Your task to perform on an android device: Turn on the flashlight Image 0: 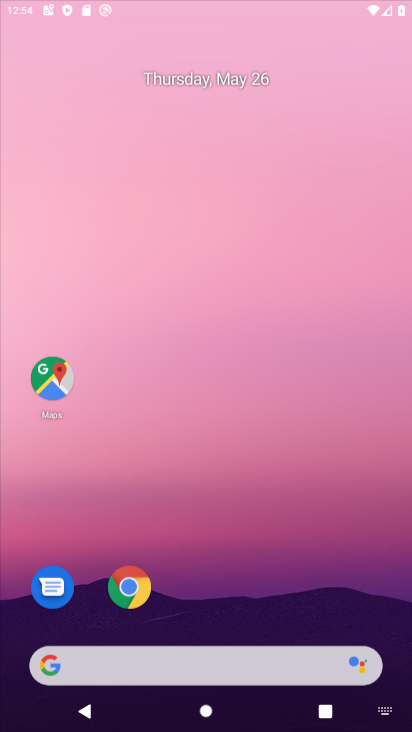
Step 0: click (131, 594)
Your task to perform on an android device: Turn on the flashlight Image 1: 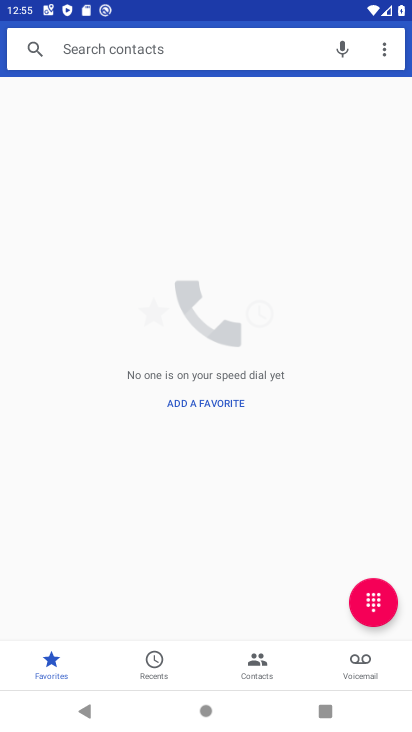
Step 1: press back button
Your task to perform on an android device: Turn on the flashlight Image 2: 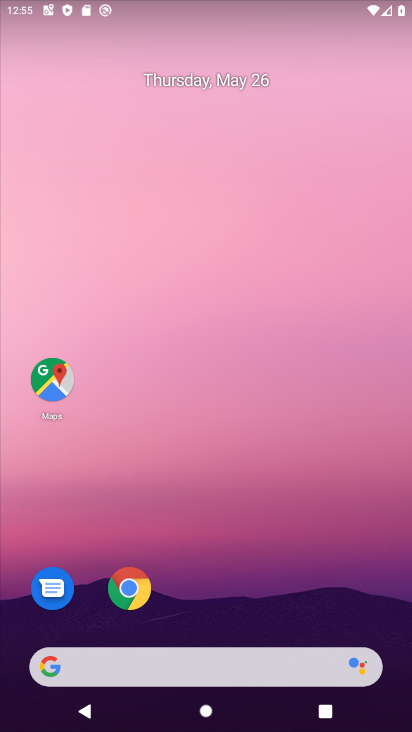
Step 2: drag from (383, 660) to (340, 220)
Your task to perform on an android device: Turn on the flashlight Image 3: 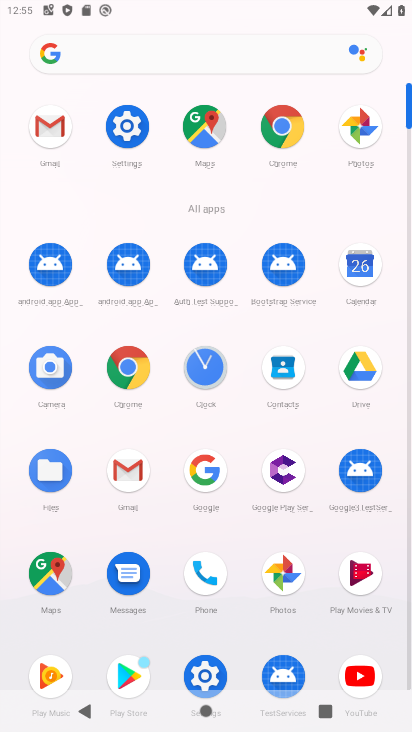
Step 3: click (127, 119)
Your task to perform on an android device: Turn on the flashlight Image 4: 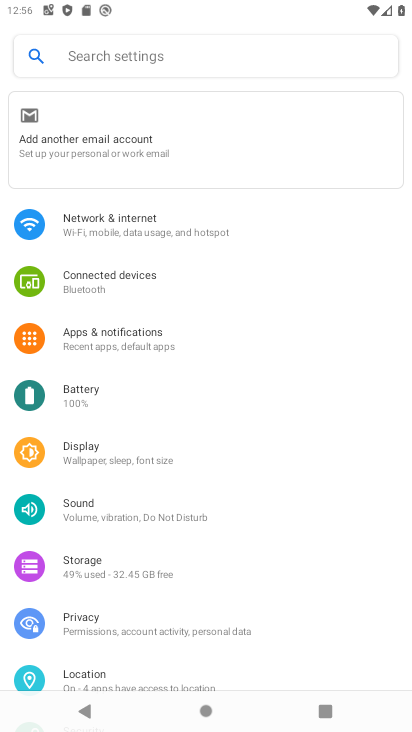
Step 4: drag from (309, 638) to (350, 302)
Your task to perform on an android device: Turn on the flashlight Image 5: 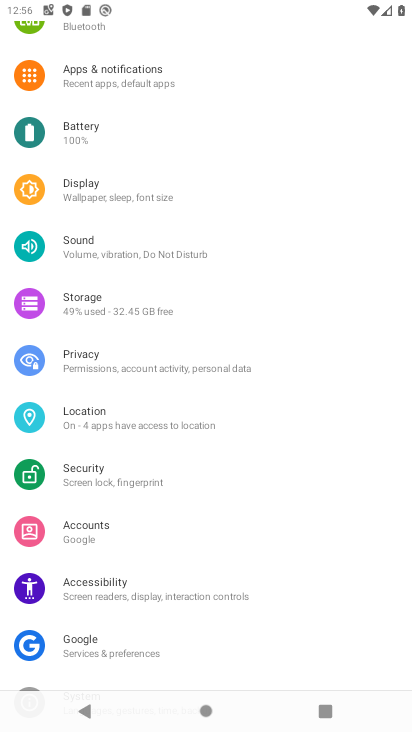
Step 5: drag from (277, 157) to (328, 537)
Your task to perform on an android device: Turn on the flashlight Image 6: 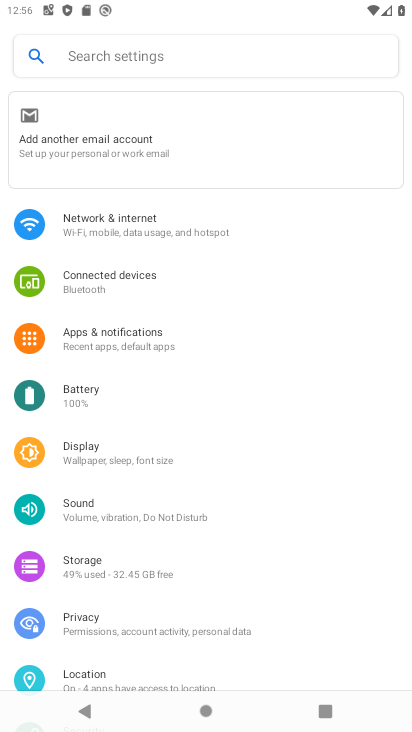
Step 6: click (82, 451)
Your task to perform on an android device: Turn on the flashlight Image 7: 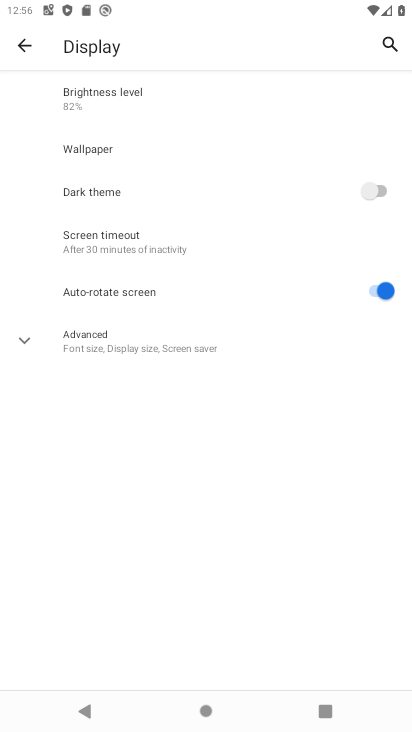
Step 7: task complete